Your task to perform on an android device: What's a goodrestaurant in Austin? Image 0: 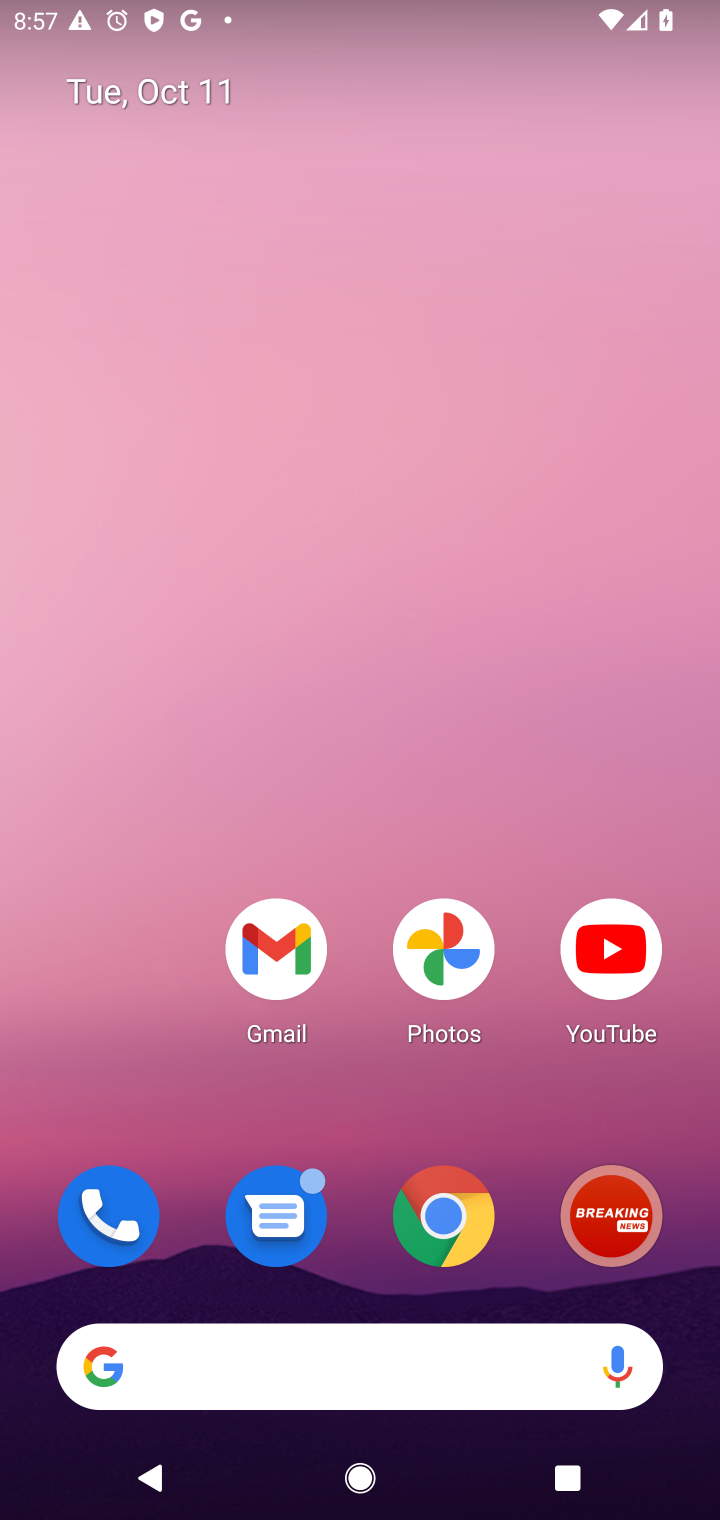
Step 0: click (444, 1219)
Your task to perform on an android device: What's a goodrestaurant in Austin? Image 1: 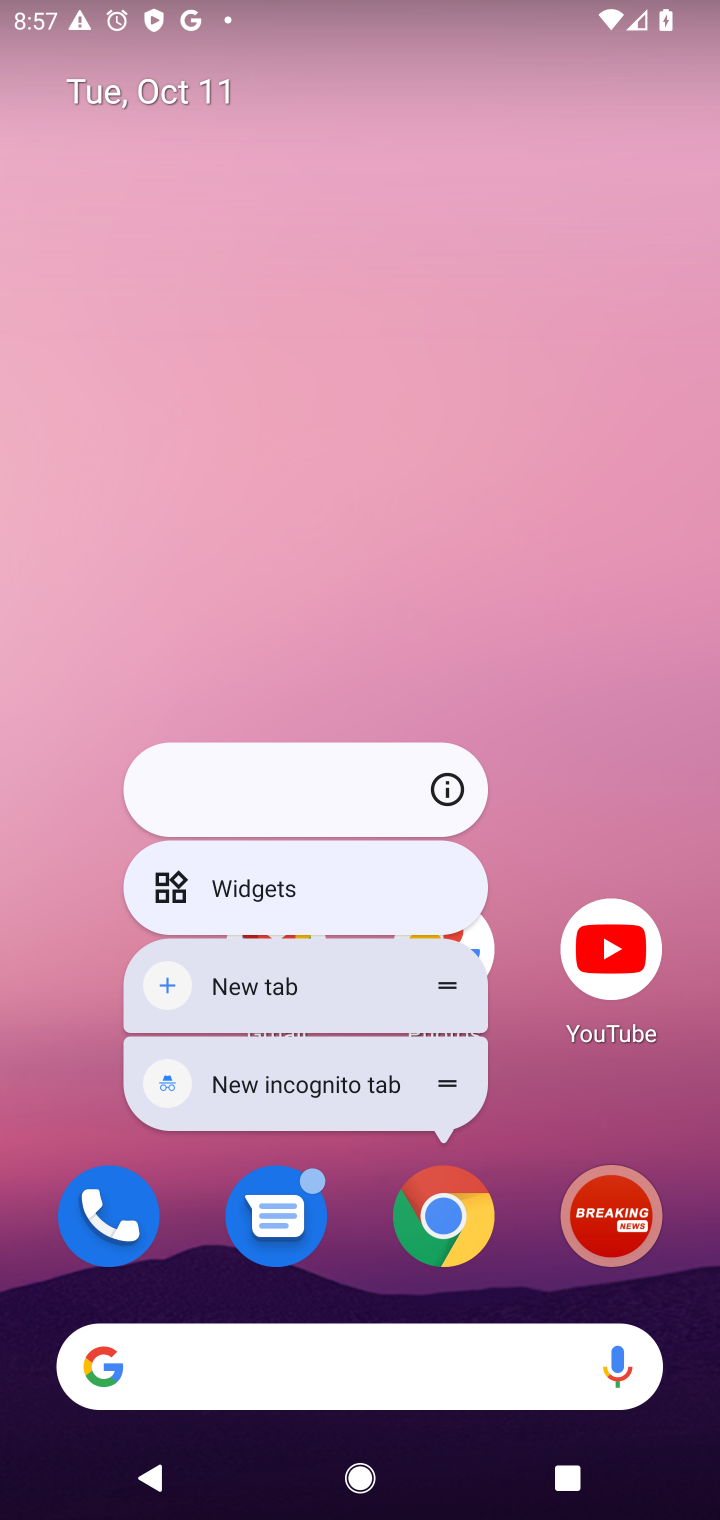
Step 1: click (453, 1202)
Your task to perform on an android device: What's a goodrestaurant in Austin? Image 2: 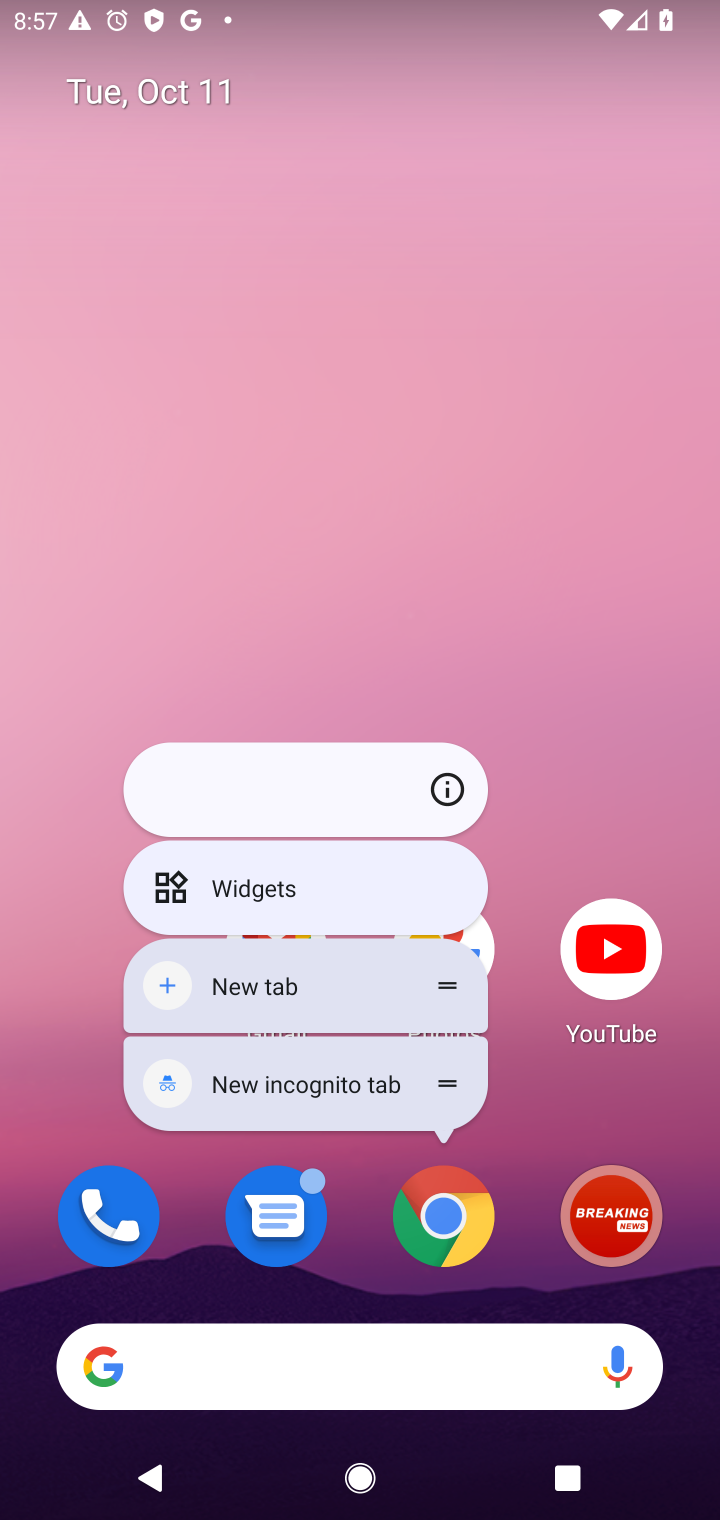
Step 2: click (419, 1211)
Your task to perform on an android device: What's a goodrestaurant in Austin? Image 3: 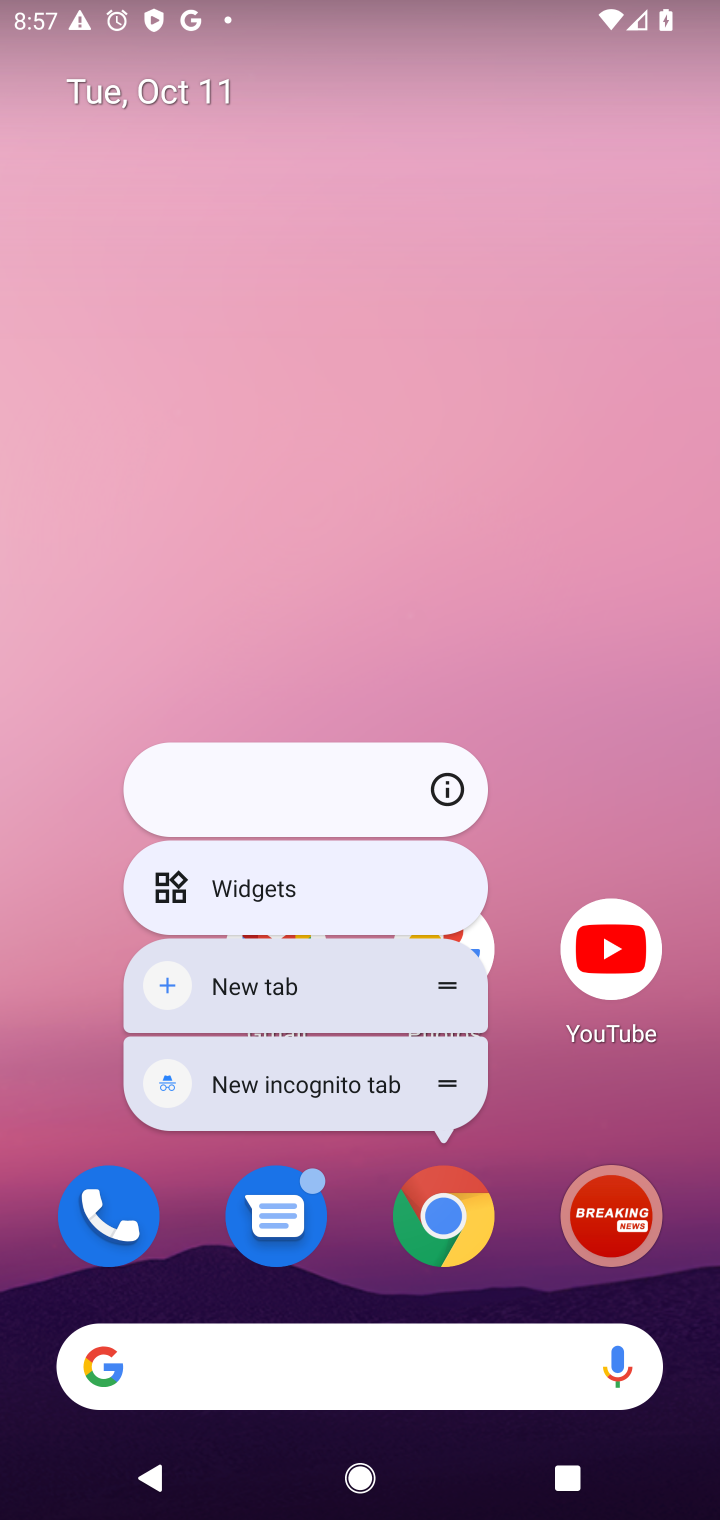
Step 3: click (473, 1200)
Your task to perform on an android device: What's a goodrestaurant in Austin? Image 4: 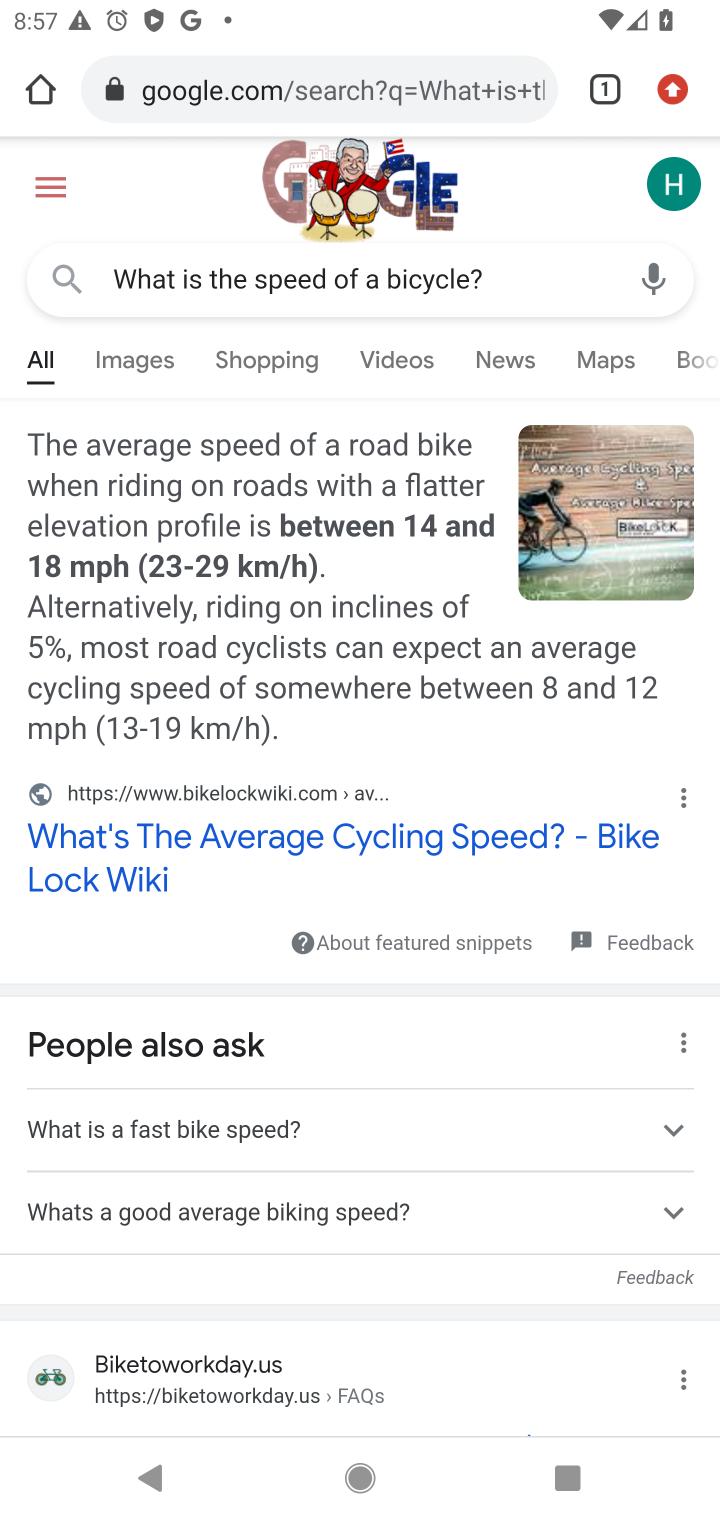
Step 4: click (532, 267)
Your task to perform on an android device: What's a goodrestaurant in Austin? Image 5: 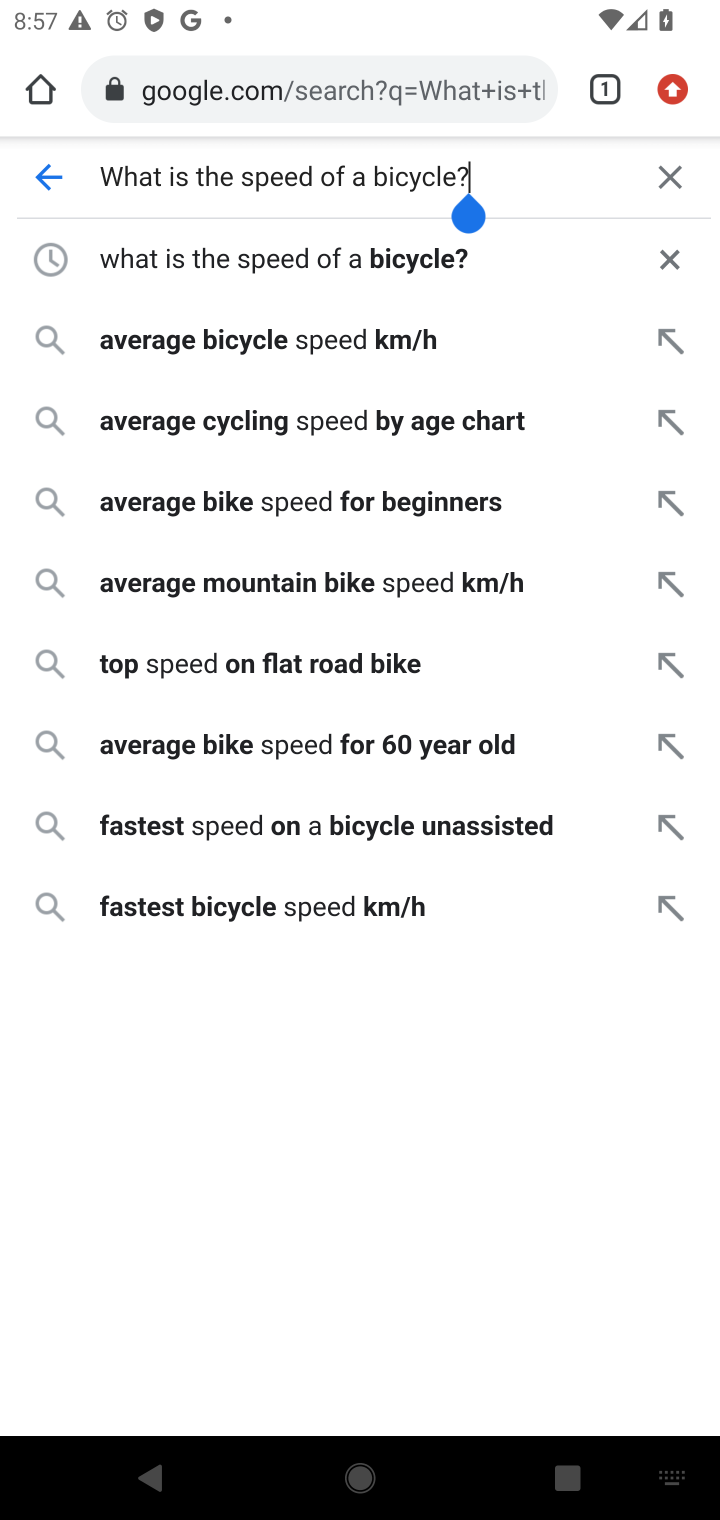
Step 5: click (663, 172)
Your task to perform on an android device: What's a goodrestaurant in Austin? Image 6: 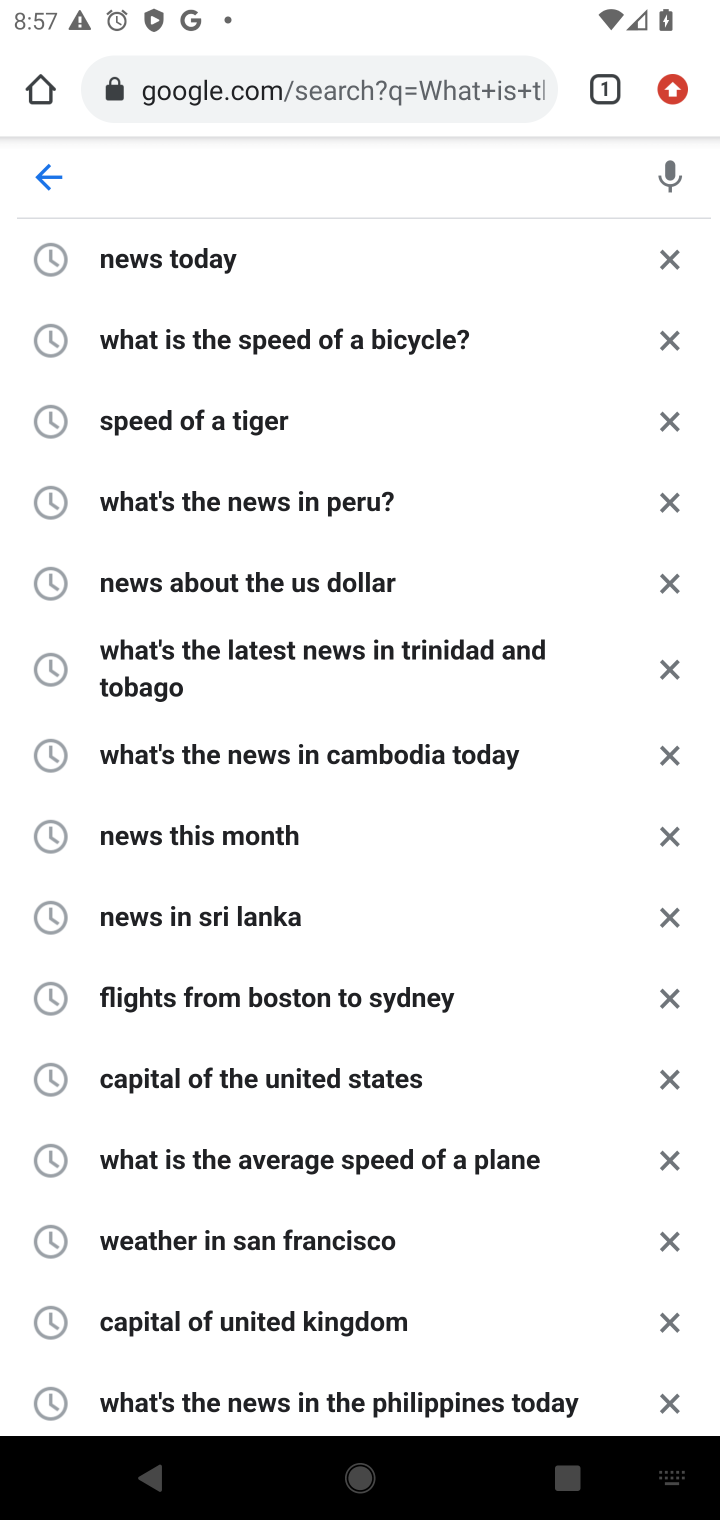
Step 6: type "What's a goodrestaurant in Austin?"
Your task to perform on an android device: What's a goodrestaurant in Austin? Image 7: 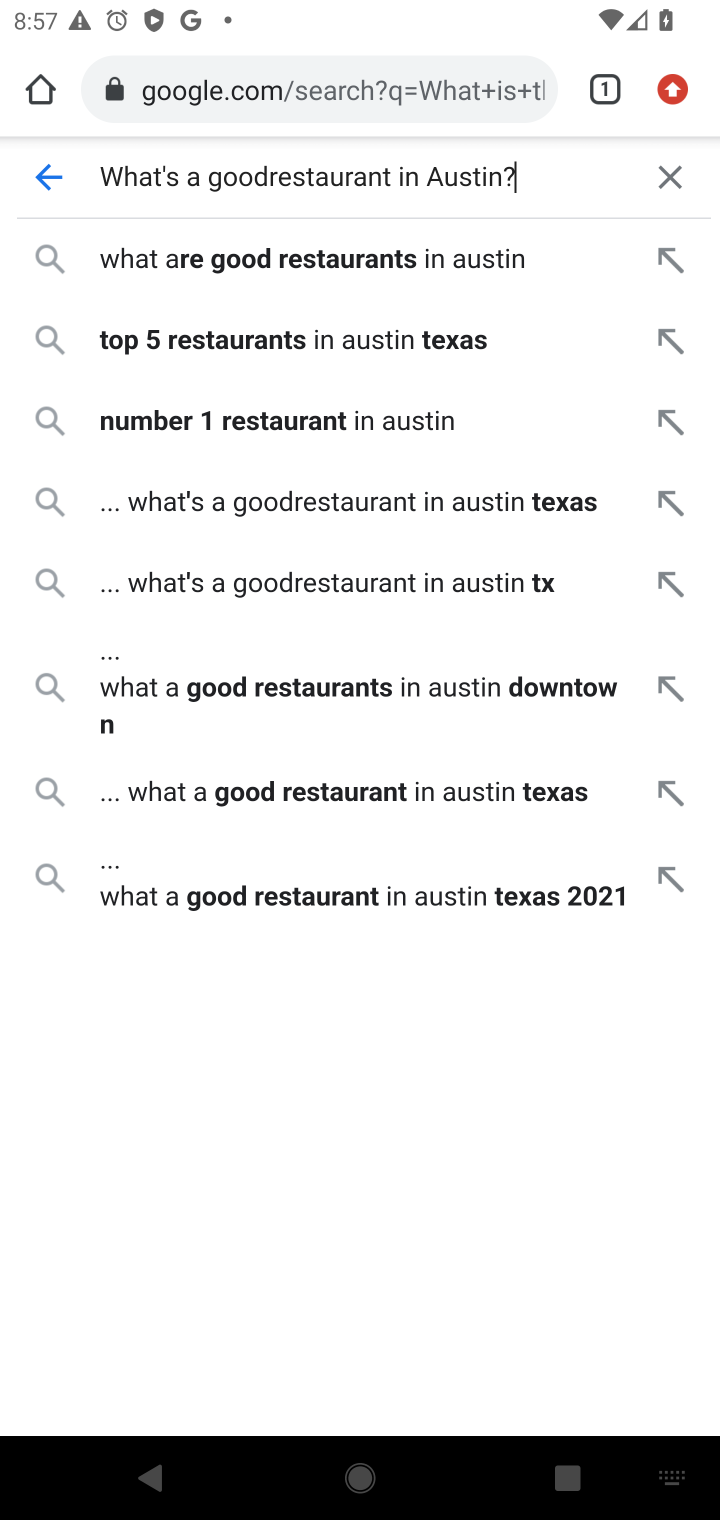
Step 7: press enter
Your task to perform on an android device: What's a goodrestaurant in Austin? Image 8: 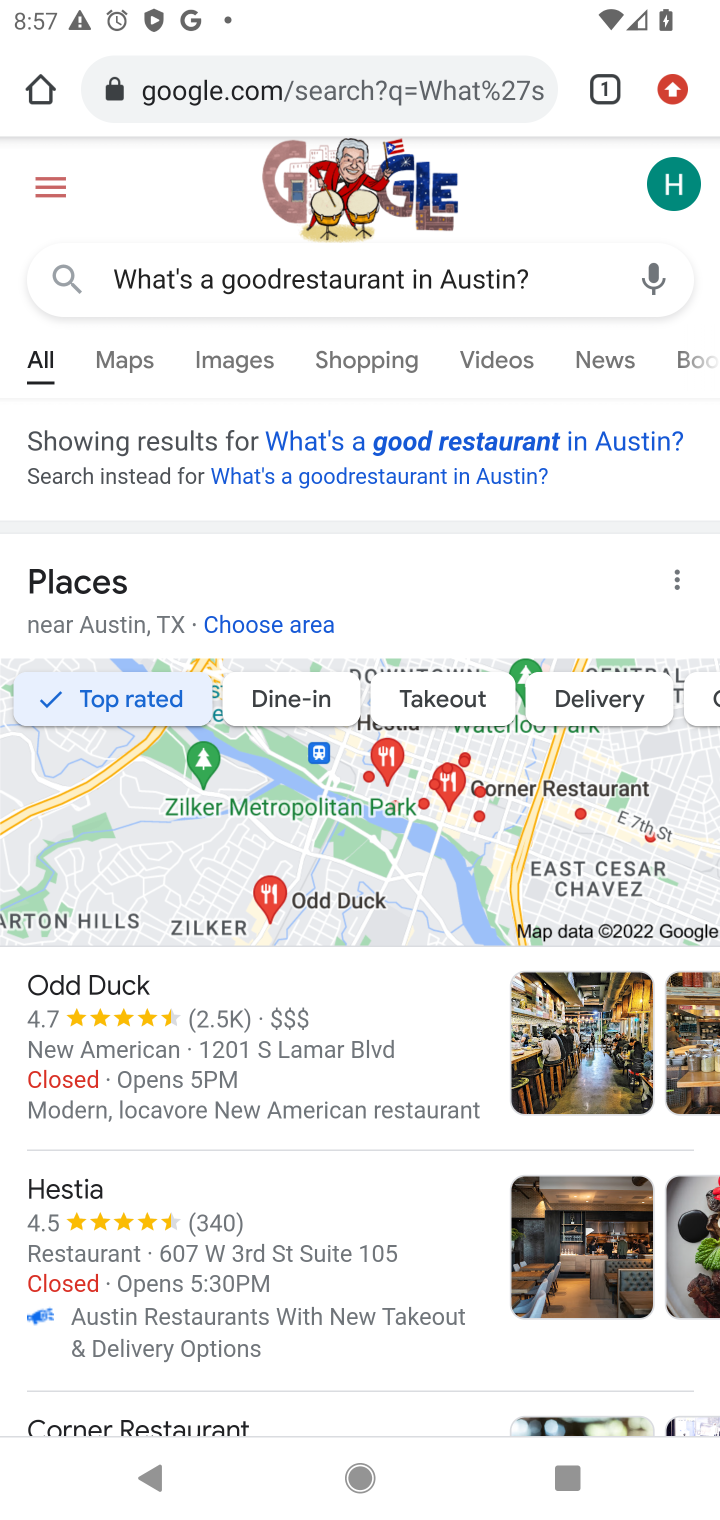
Step 8: task complete